Your task to perform on an android device: Open Youtube and go to "Your channel" Image 0: 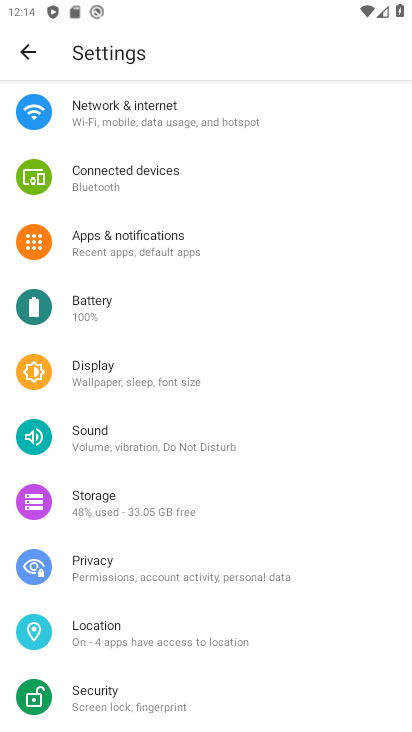
Step 0: press home button
Your task to perform on an android device: Open Youtube and go to "Your channel" Image 1: 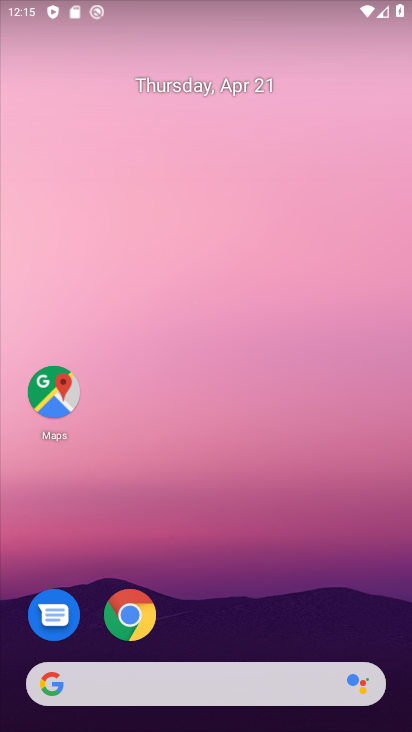
Step 1: drag from (200, 450) to (258, 12)
Your task to perform on an android device: Open Youtube and go to "Your channel" Image 2: 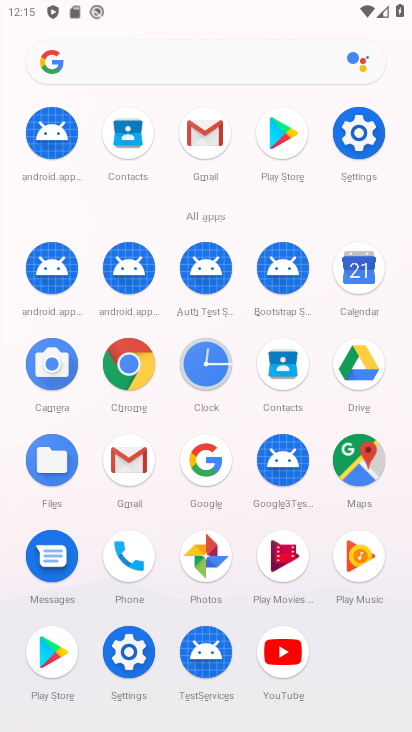
Step 2: click (285, 643)
Your task to perform on an android device: Open Youtube and go to "Your channel" Image 3: 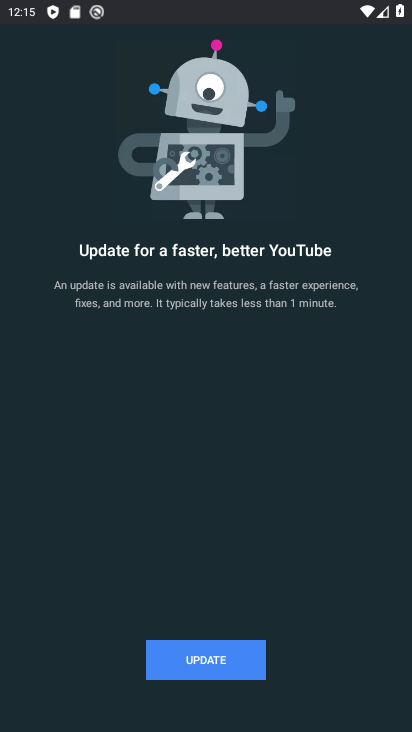
Step 3: click (172, 651)
Your task to perform on an android device: Open Youtube and go to "Your channel" Image 4: 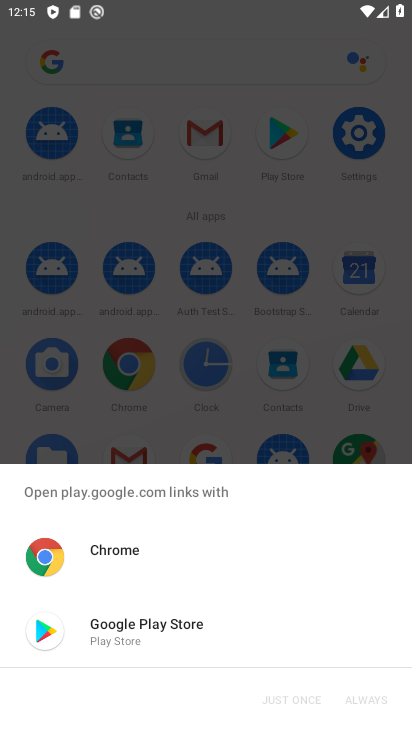
Step 4: click (140, 629)
Your task to perform on an android device: Open Youtube and go to "Your channel" Image 5: 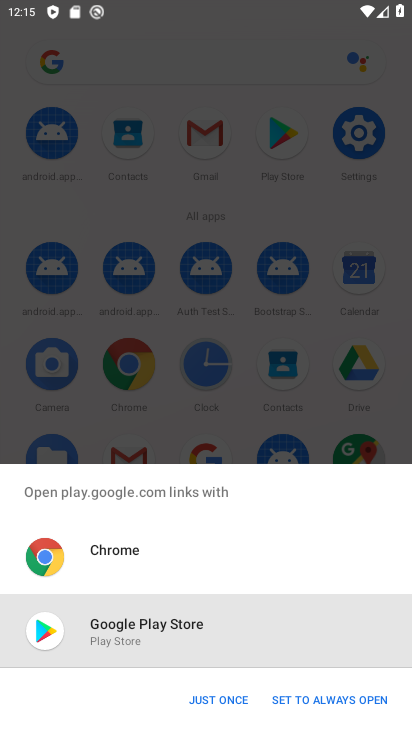
Step 5: click (207, 701)
Your task to perform on an android device: Open Youtube and go to "Your channel" Image 6: 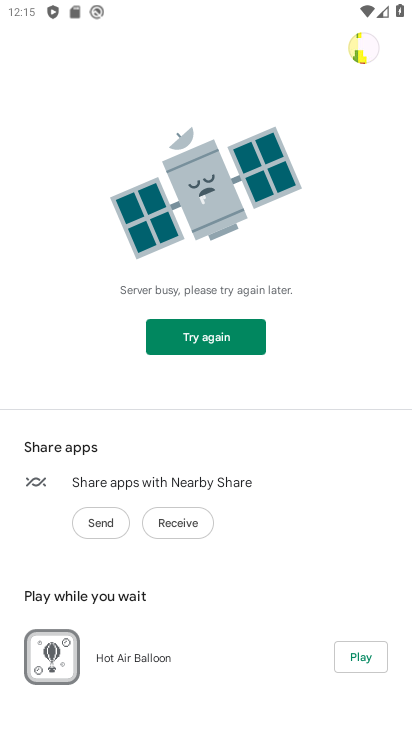
Step 6: click (209, 341)
Your task to perform on an android device: Open Youtube and go to "Your channel" Image 7: 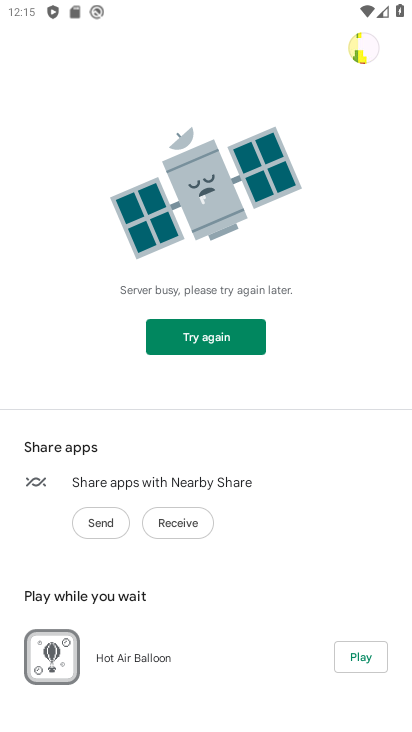
Step 7: task complete